Your task to perform on an android device: manage bookmarks in the chrome app Image 0: 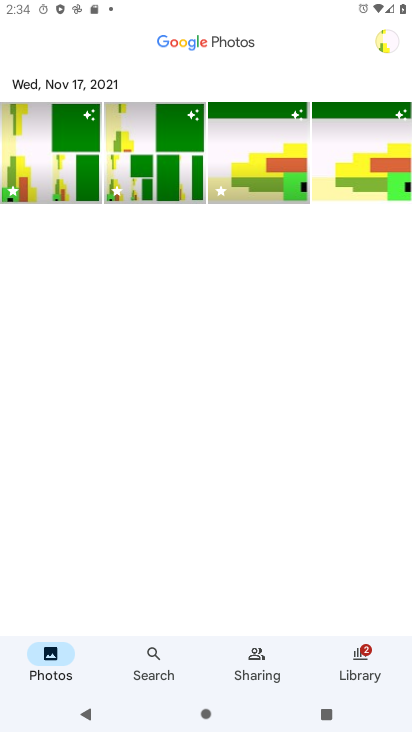
Step 0: press home button
Your task to perform on an android device: manage bookmarks in the chrome app Image 1: 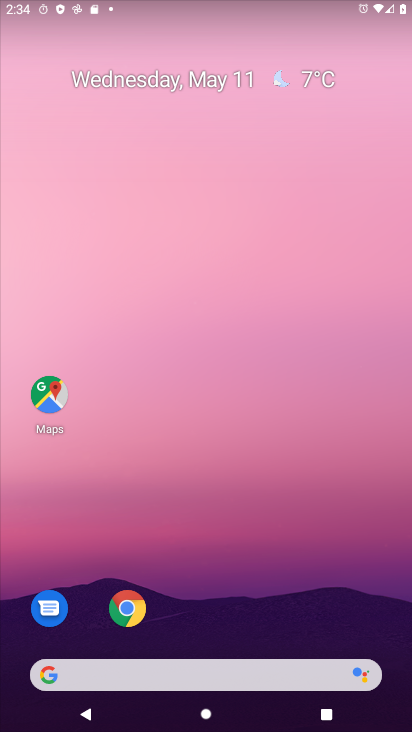
Step 1: click (135, 609)
Your task to perform on an android device: manage bookmarks in the chrome app Image 2: 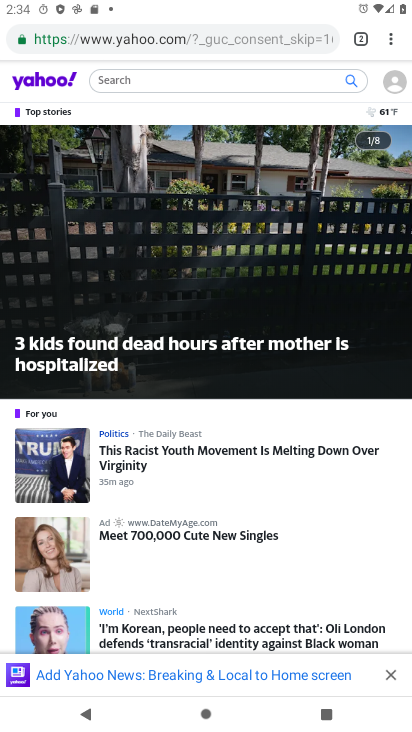
Step 2: click (389, 35)
Your task to perform on an android device: manage bookmarks in the chrome app Image 3: 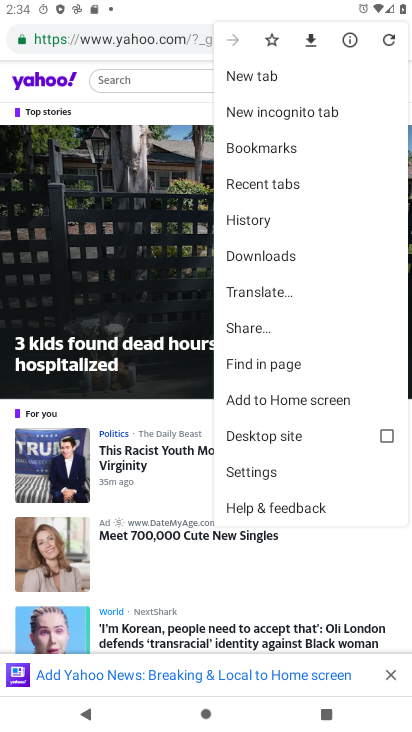
Step 3: click (282, 146)
Your task to perform on an android device: manage bookmarks in the chrome app Image 4: 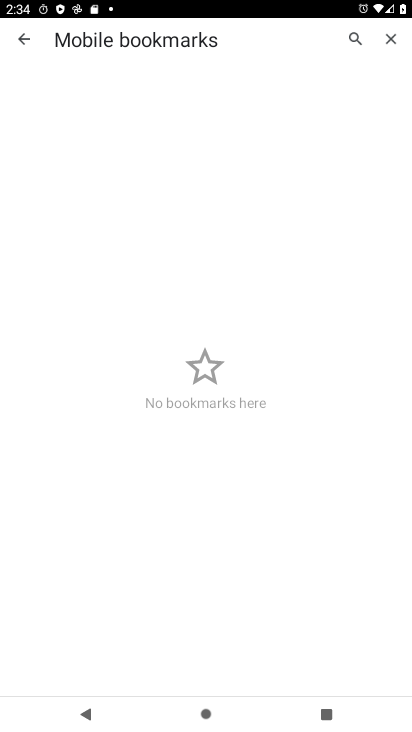
Step 4: task complete